Your task to perform on an android device: change timer sound Image 0: 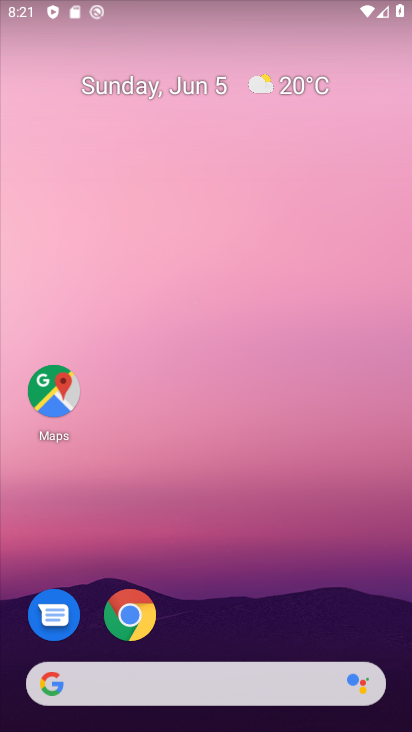
Step 0: drag from (129, 728) to (107, 67)
Your task to perform on an android device: change timer sound Image 1: 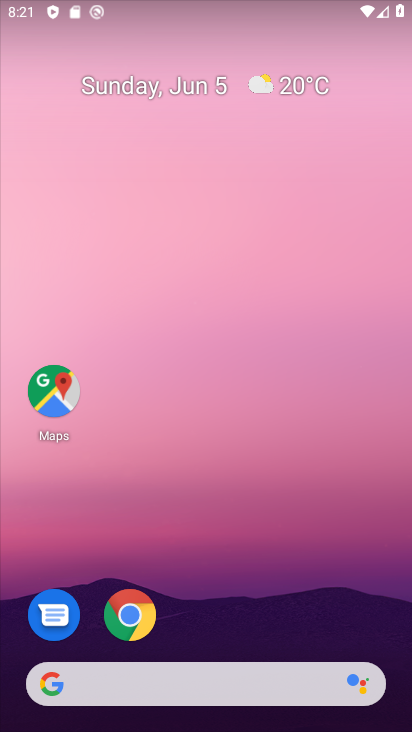
Step 1: drag from (151, 727) to (142, 83)
Your task to perform on an android device: change timer sound Image 2: 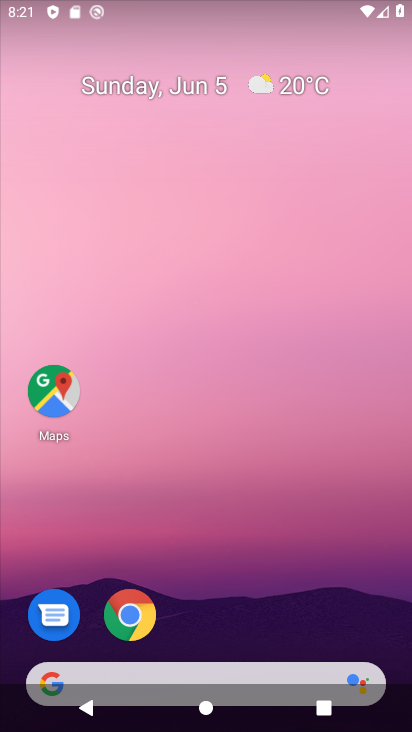
Step 2: drag from (150, 696) to (140, 38)
Your task to perform on an android device: change timer sound Image 3: 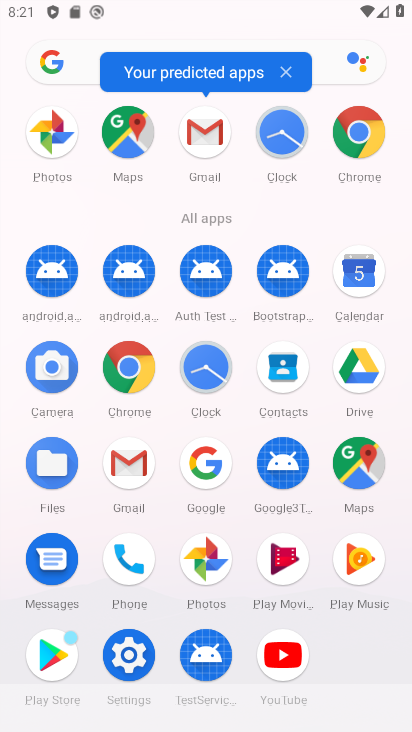
Step 3: click (293, 137)
Your task to perform on an android device: change timer sound Image 4: 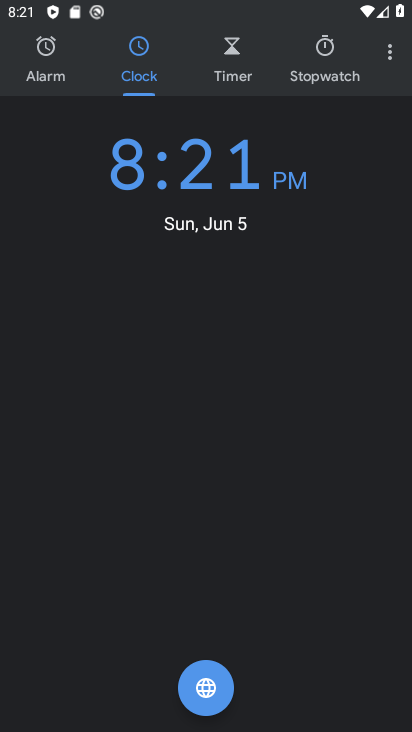
Step 4: click (390, 53)
Your task to perform on an android device: change timer sound Image 5: 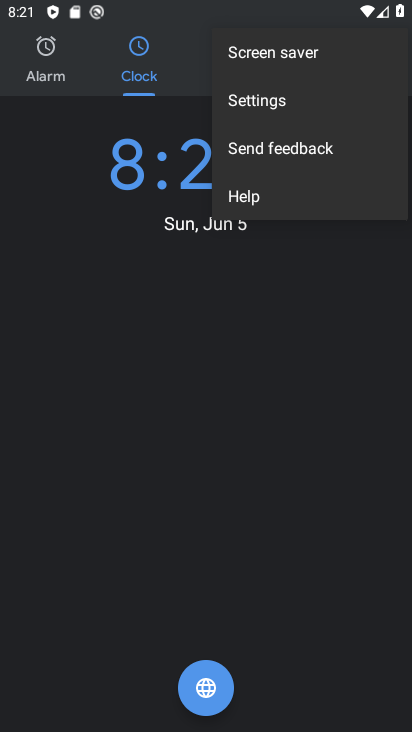
Step 5: click (262, 105)
Your task to perform on an android device: change timer sound Image 6: 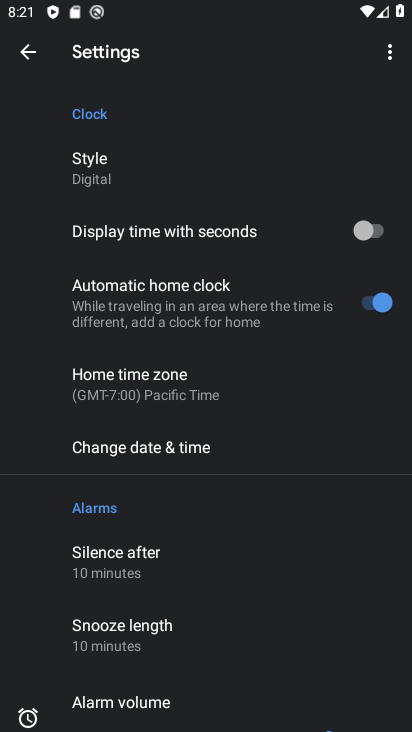
Step 6: drag from (190, 635) to (198, 316)
Your task to perform on an android device: change timer sound Image 7: 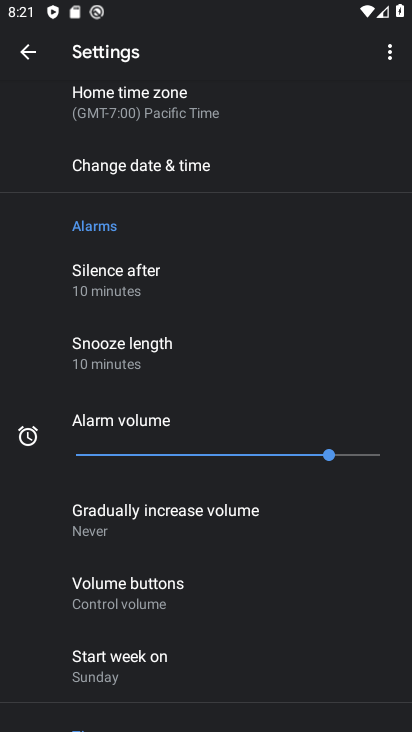
Step 7: drag from (158, 638) to (163, 305)
Your task to perform on an android device: change timer sound Image 8: 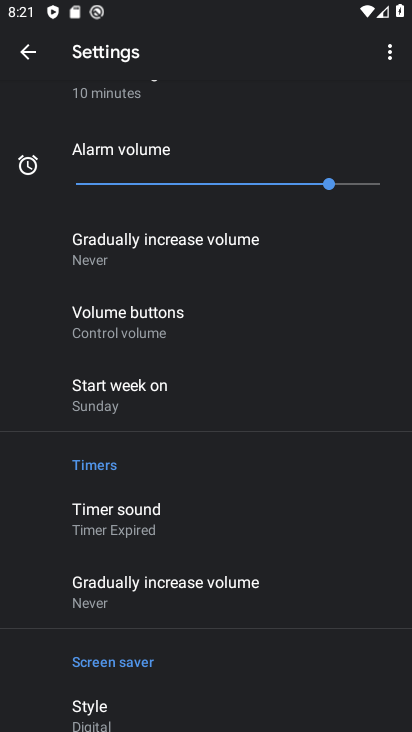
Step 8: click (150, 530)
Your task to perform on an android device: change timer sound Image 9: 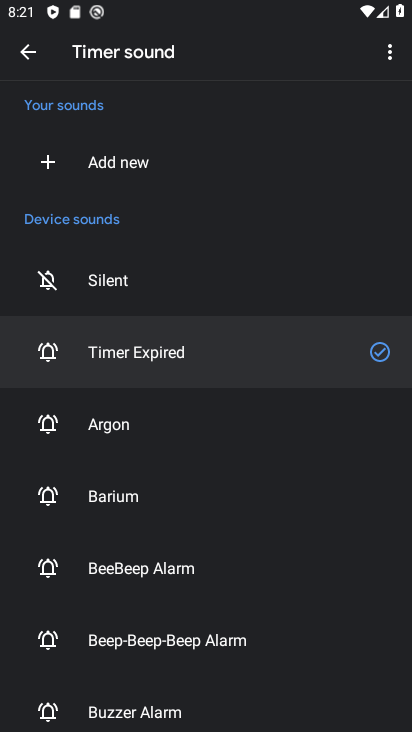
Step 9: click (228, 502)
Your task to perform on an android device: change timer sound Image 10: 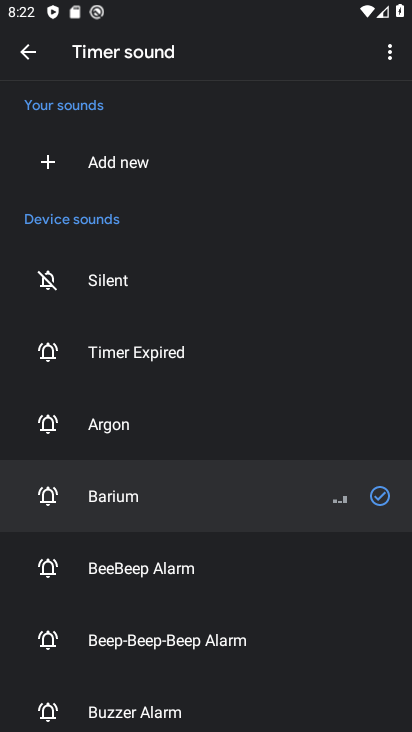
Step 10: task complete